Your task to perform on an android device: show emergency info Image 0: 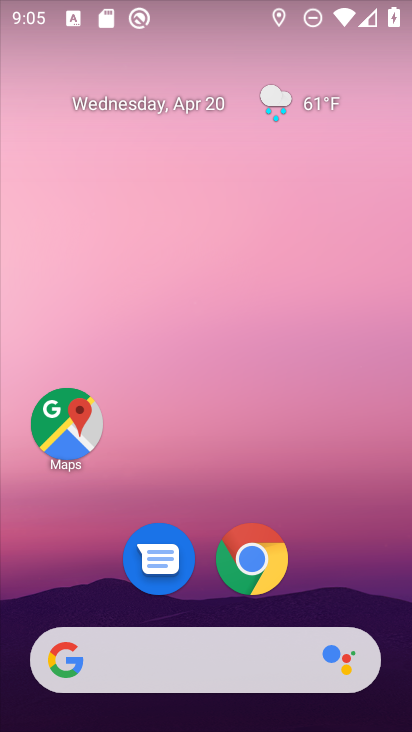
Step 0: drag from (360, 608) to (303, 143)
Your task to perform on an android device: show emergency info Image 1: 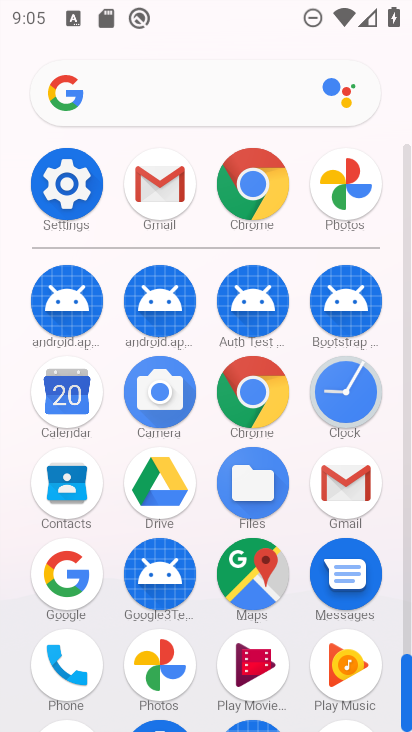
Step 1: click (63, 188)
Your task to perform on an android device: show emergency info Image 2: 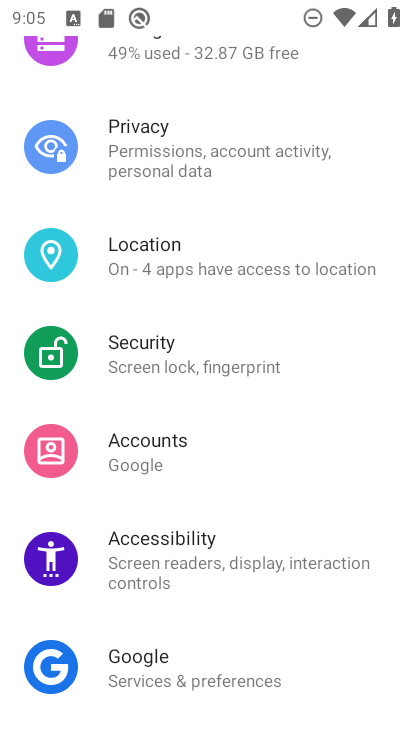
Step 2: drag from (253, 621) to (233, 306)
Your task to perform on an android device: show emergency info Image 3: 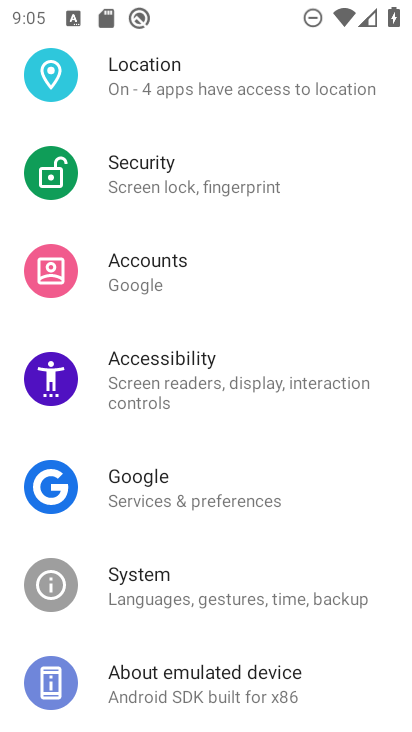
Step 3: click (180, 676)
Your task to perform on an android device: show emergency info Image 4: 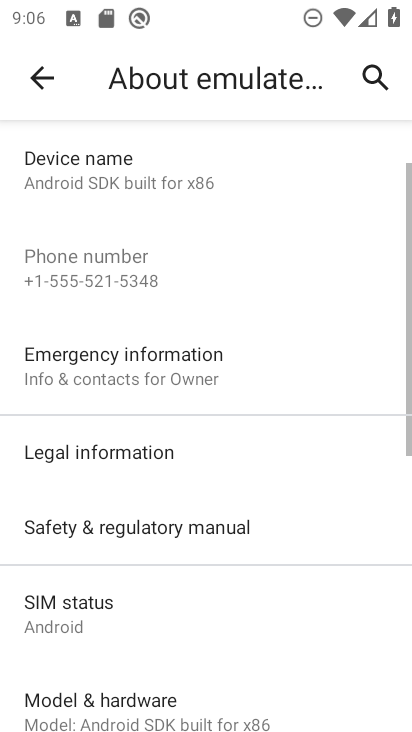
Step 4: drag from (177, 530) to (158, 180)
Your task to perform on an android device: show emergency info Image 5: 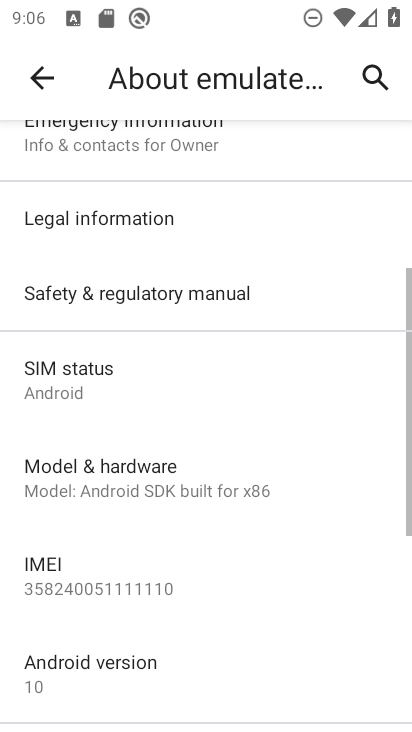
Step 5: drag from (205, 538) to (210, 228)
Your task to perform on an android device: show emergency info Image 6: 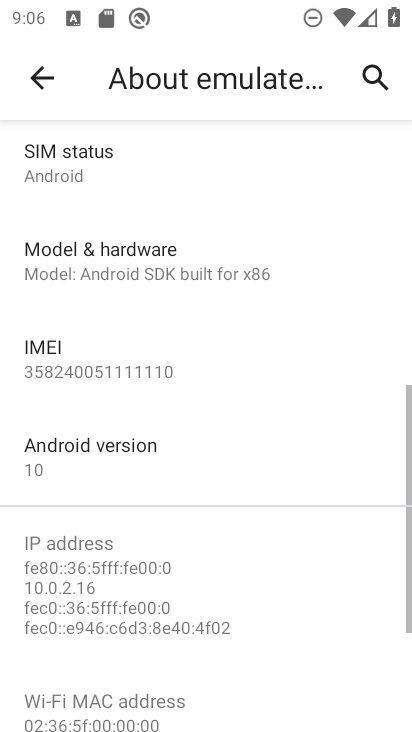
Step 6: drag from (210, 228) to (172, 638)
Your task to perform on an android device: show emergency info Image 7: 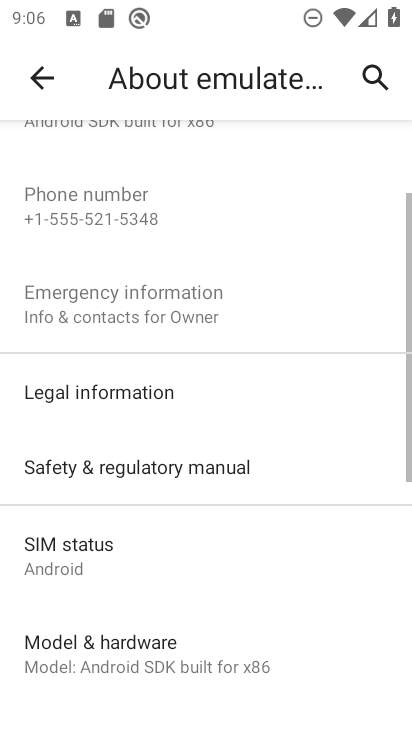
Step 7: click (109, 301)
Your task to perform on an android device: show emergency info Image 8: 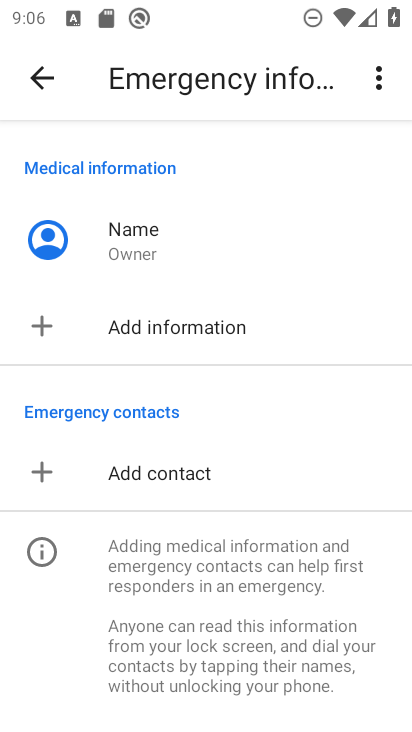
Step 8: task complete